Your task to perform on an android device: turn pop-ups on in chrome Image 0: 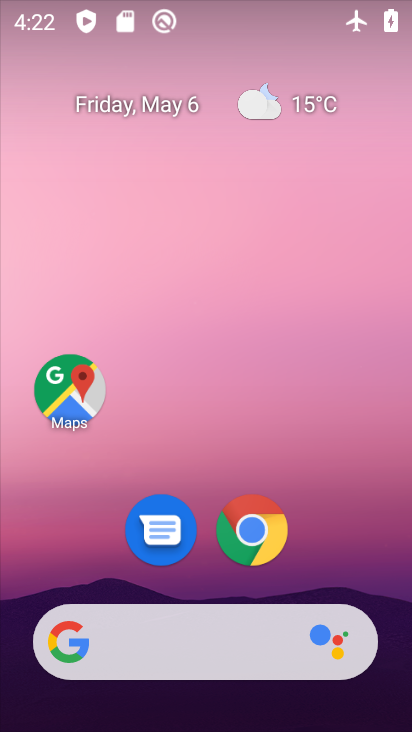
Step 0: drag from (353, 547) to (279, 7)
Your task to perform on an android device: turn pop-ups on in chrome Image 1: 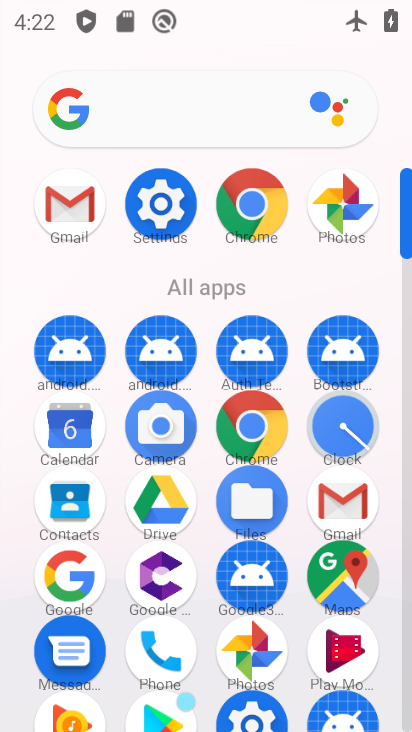
Step 1: click (269, 247)
Your task to perform on an android device: turn pop-ups on in chrome Image 2: 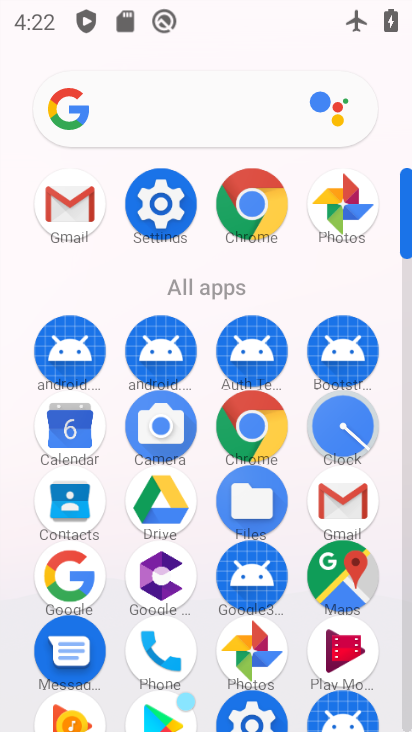
Step 2: click (262, 218)
Your task to perform on an android device: turn pop-ups on in chrome Image 3: 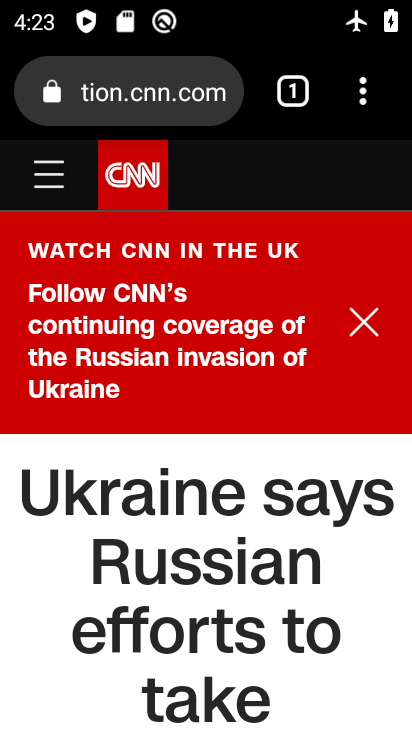
Step 3: drag from (365, 105) to (167, 560)
Your task to perform on an android device: turn pop-ups on in chrome Image 4: 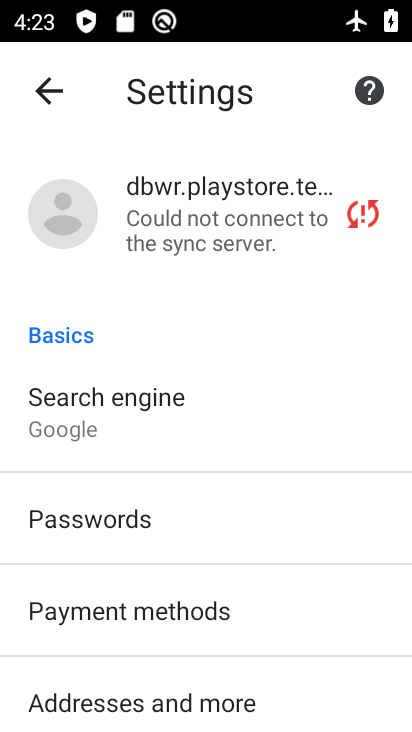
Step 4: drag from (180, 614) to (137, 229)
Your task to perform on an android device: turn pop-ups on in chrome Image 5: 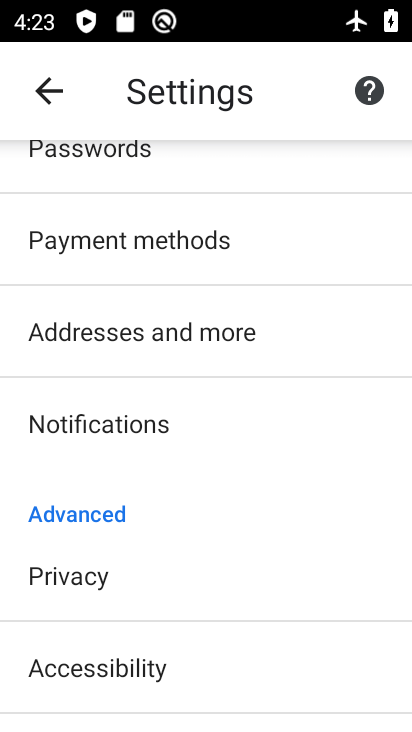
Step 5: drag from (276, 642) to (229, 260)
Your task to perform on an android device: turn pop-ups on in chrome Image 6: 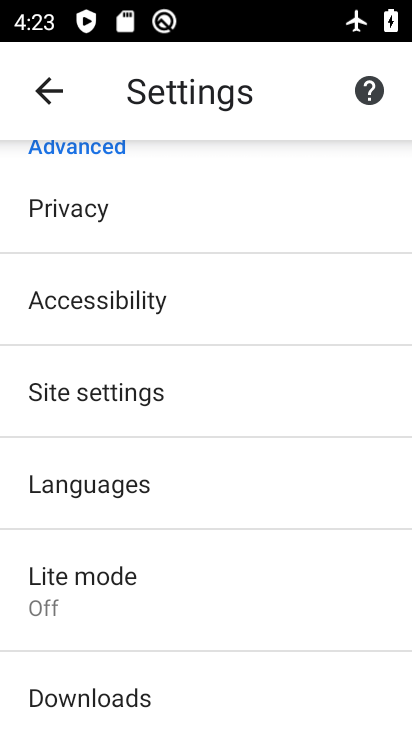
Step 6: click (71, 399)
Your task to perform on an android device: turn pop-ups on in chrome Image 7: 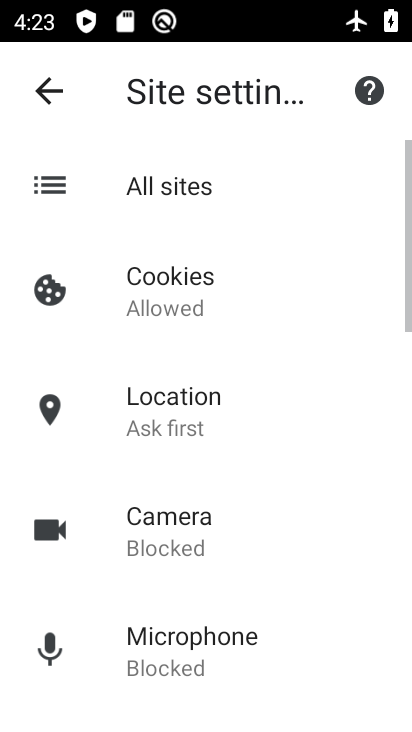
Step 7: drag from (228, 599) to (196, 234)
Your task to perform on an android device: turn pop-ups on in chrome Image 8: 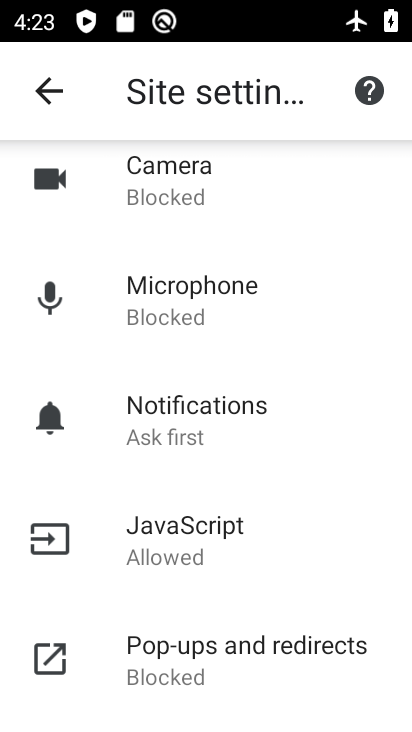
Step 8: click (283, 658)
Your task to perform on an android device: turn pop-ups on in chrome Image 9: 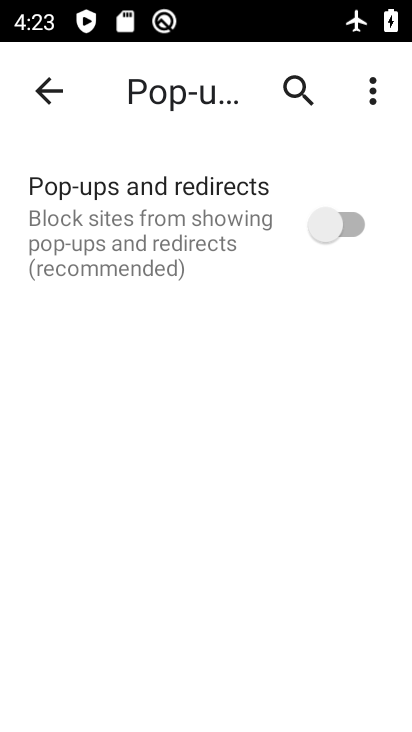
Step 9: click (323, 229)
Your task to perform on an android device: turn pop-ups on in chrome Image 10: 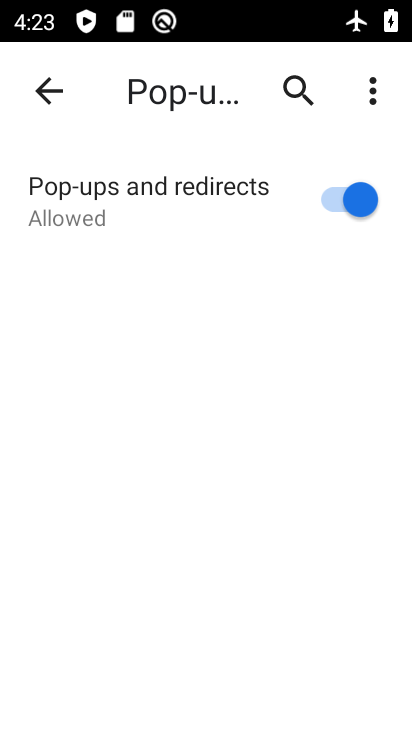
Step 10: task complete